Your task to perform on an android device: turn off wifi Image 0: 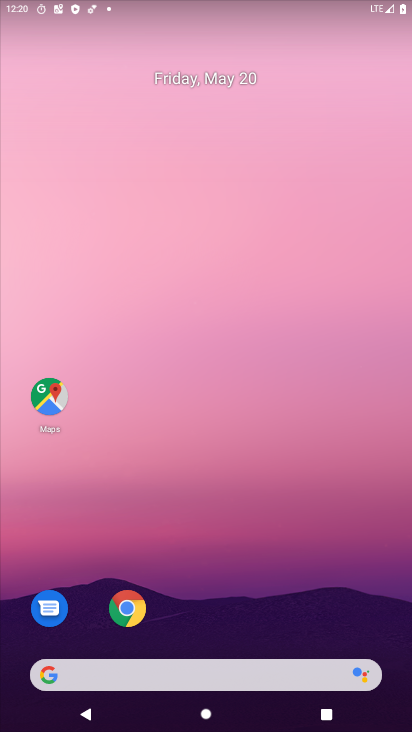
Step 0: drag from (389, 577) to (334, 121)
Your task to perform on an android device: turn off wifi Image 1: 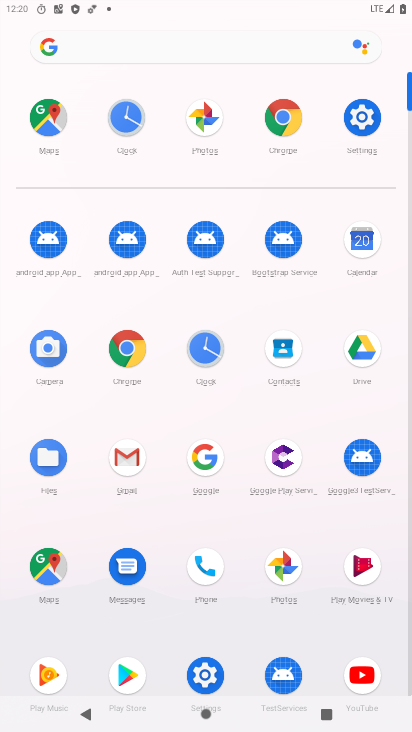
Step 1: click (359, 131)
Your task to perform on an android device: turn off wifi Image 2: 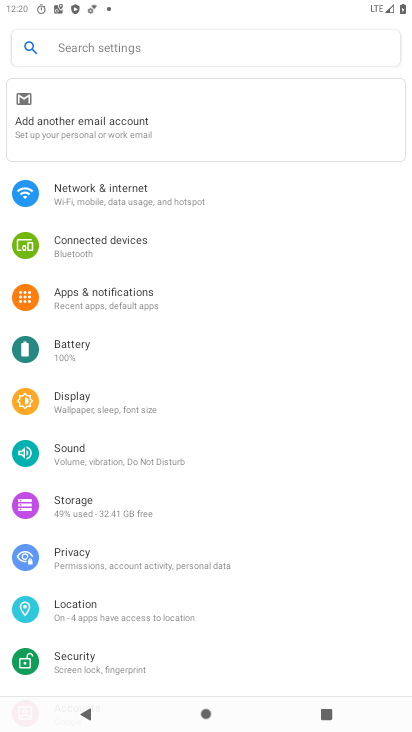
Step 2: click (178, 201)
Your task to perform on an android device: turn off wifi Image 3: 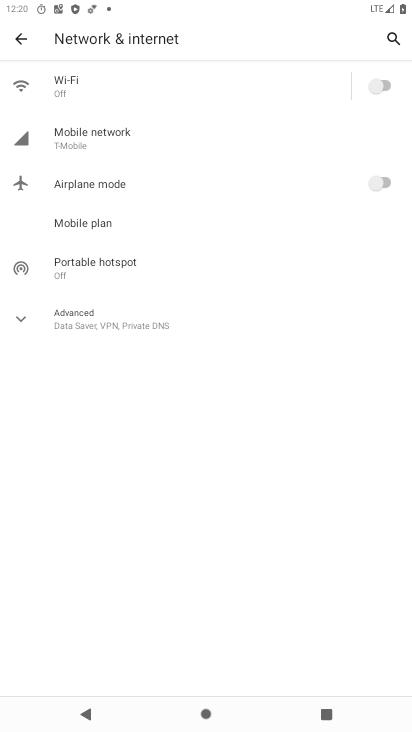
Step 3: task complete